Your task to perform on an android device: open app "Firefox Browser" Image 0: 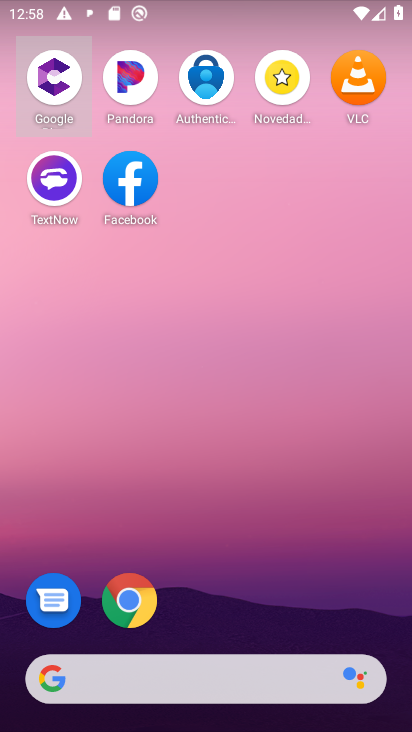
Step 0: click (180, 342)
Your task to perform on an android device: open app "Firefox Browser" Image 1: 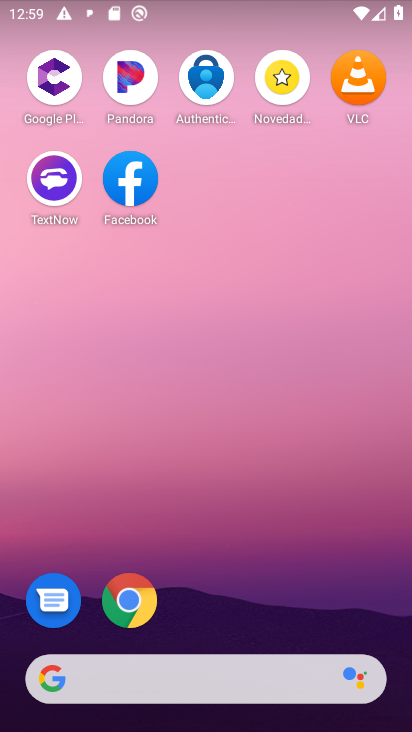
Step 1: drag from (282, 631) to (240, 297)
Your task to perform on an android device: open app "Firefox Browser" Image 2: 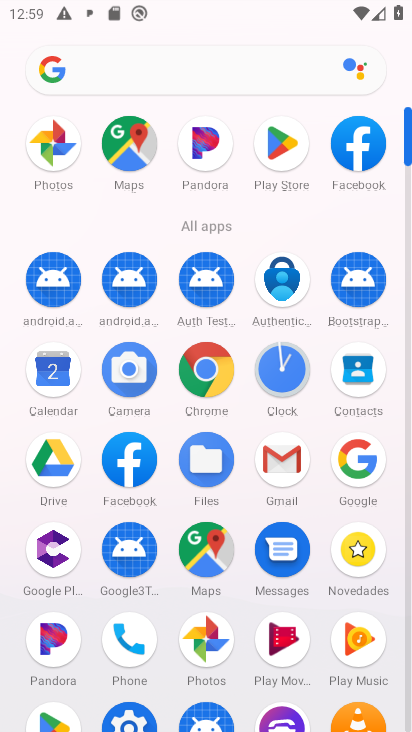
Step 2: click (283, 133)
Your task to perform on an android device: open app "Firefox Browser" Image 3: 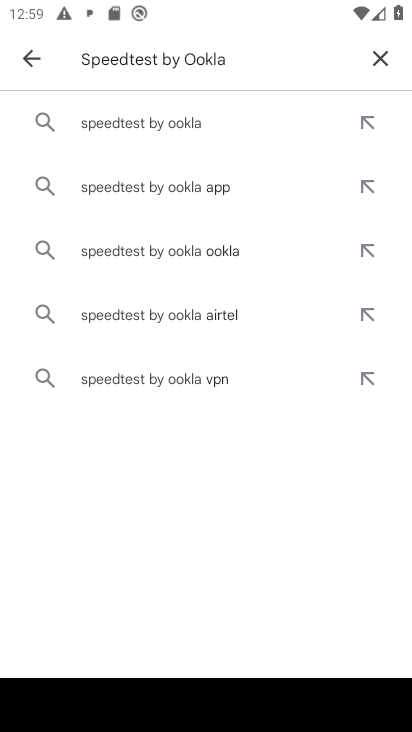
Step 3: click (387, 64)
Your task to perform on an android device: open app "Firefox Browser" Image 4: 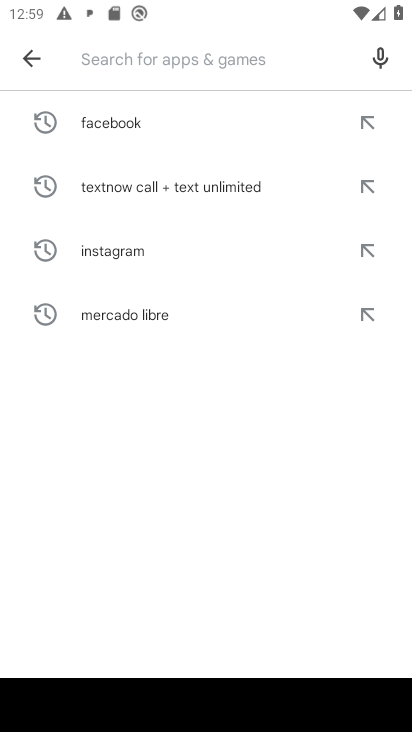
Step 4: type "Firefox Browser"
Your task to perform on an android device: open app "Firefox Browser" Image 5: 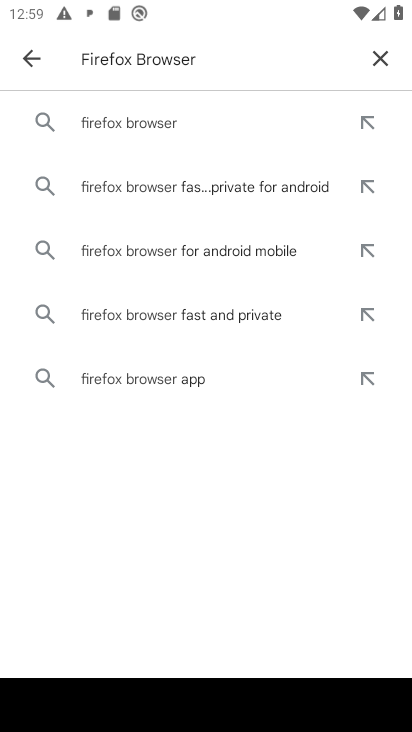
Step 5: click (130, 123)
Your task to perform on an android device: open app "Firefox Browser" Image 6: 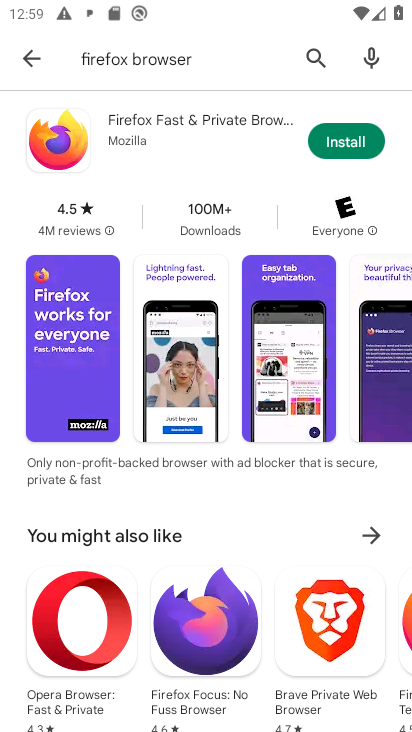
Step 6: click (340, 147)
Your task to perform on an android device: open app "Firefox Browser" Image 7: 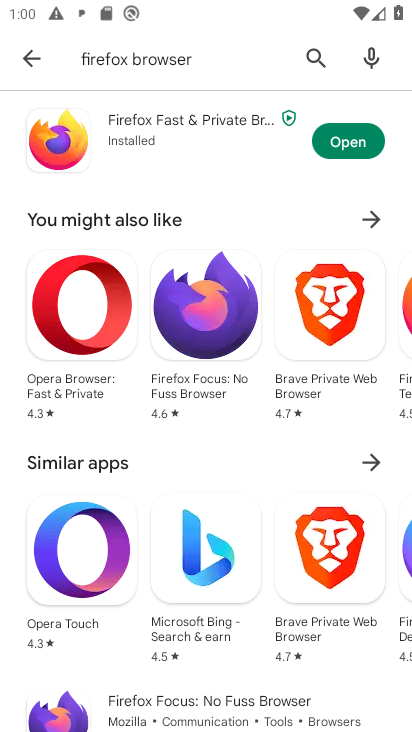
Step 7: click (332, 140)
Your task to perform on an android device: open app "Firefox Browser" Image 8: 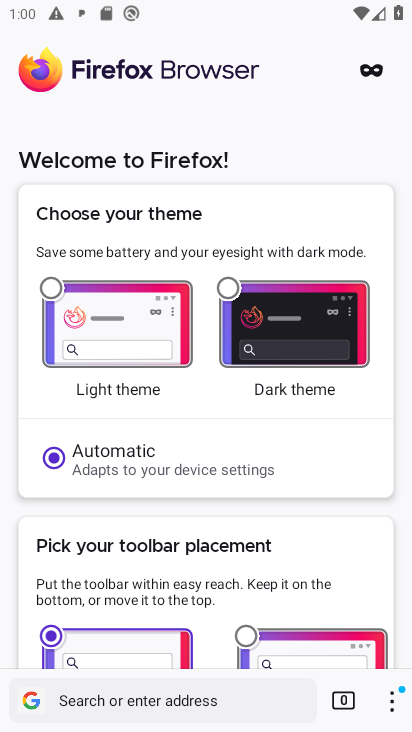
Step 8: task complete